Your task to perform on an android device: toggle location history Image 0: 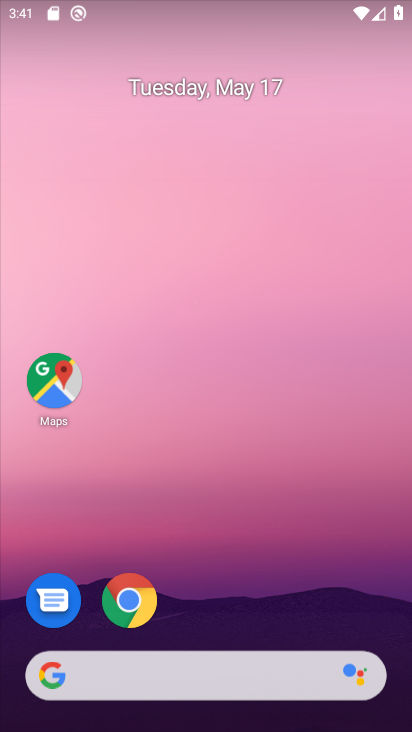
Step 0: drag from (237, 559) to (318, 5)
Your task to perform on an android device: toggle location history Image 1: 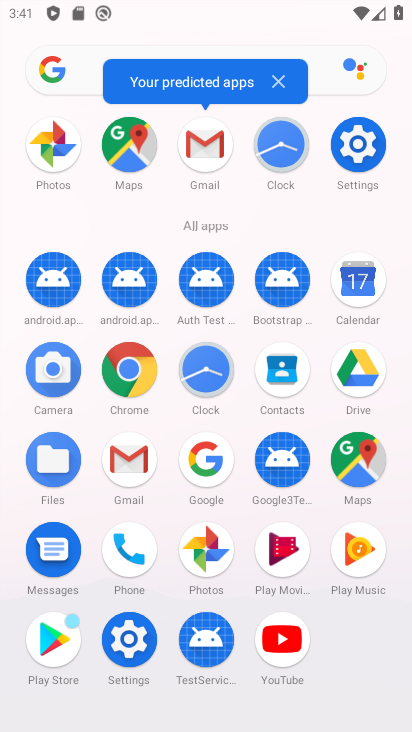
Step 1: click (132, 656)
Your task to perform on an android device: toggle location history Image 2: 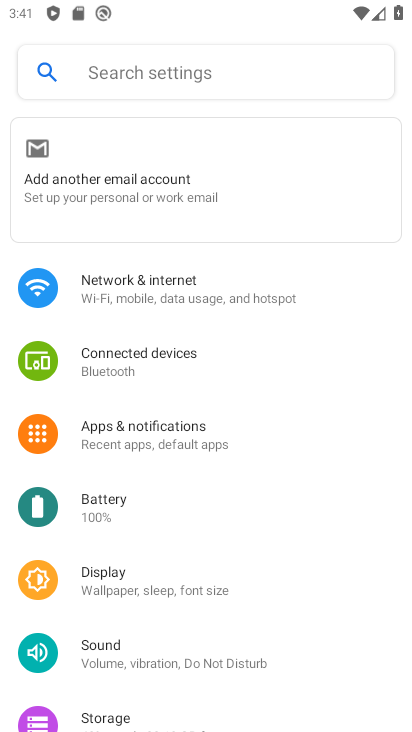
Step 2: click (214, 244)
Your task to perform on an android device: toggle location history Image 3: 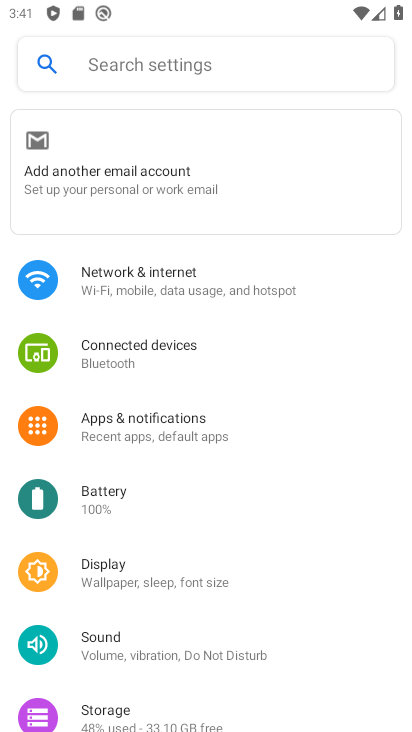
Step 3: drag from (157, 622) to (225, 233)
Your task to perform on an android device: toggle location history Image 4: 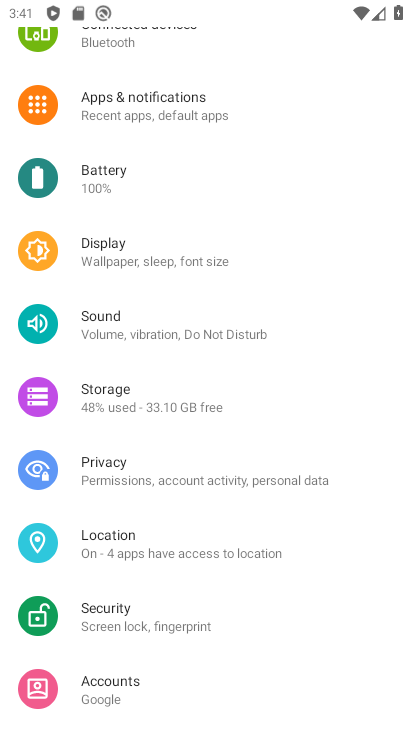
Step 4: click (169, 545)
Your task to perform on an android device: toggle location history Image 5: 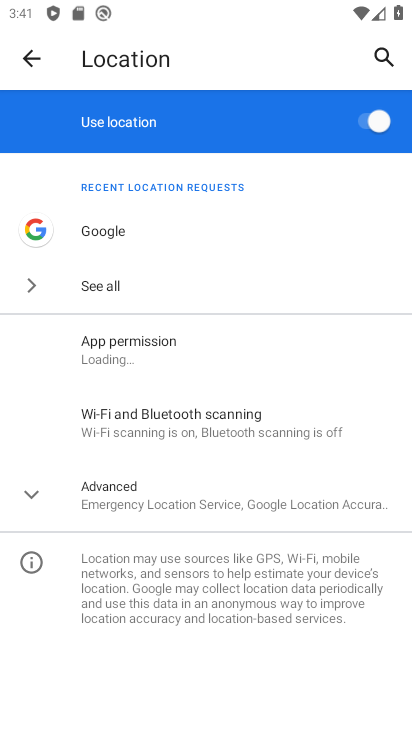
Step 5: click (168, 493)
Your task to perform on an android device: toggle location history Image 6: 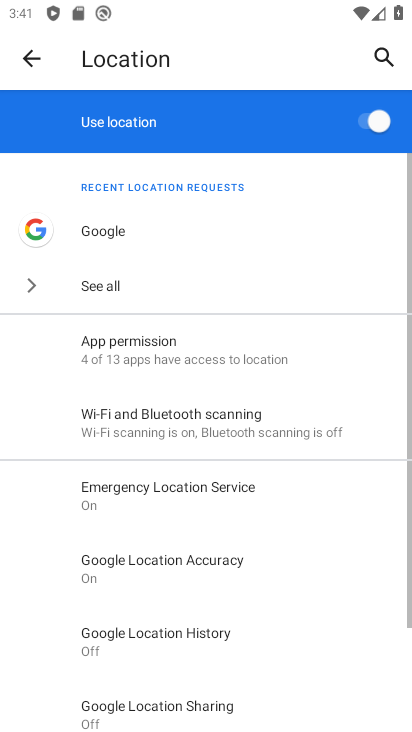
Step 6: click (187, 639)
Your task to perform on an android device: toggle location history Image 7: 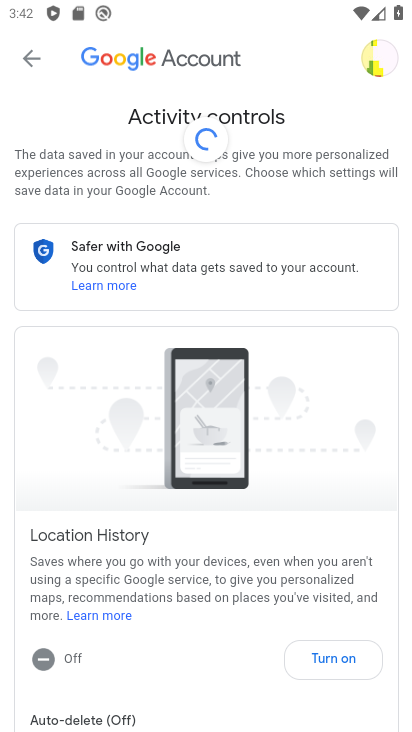
Step 7: click (336, 664)
Your task to perform on an android device: toggle location history Image 8: 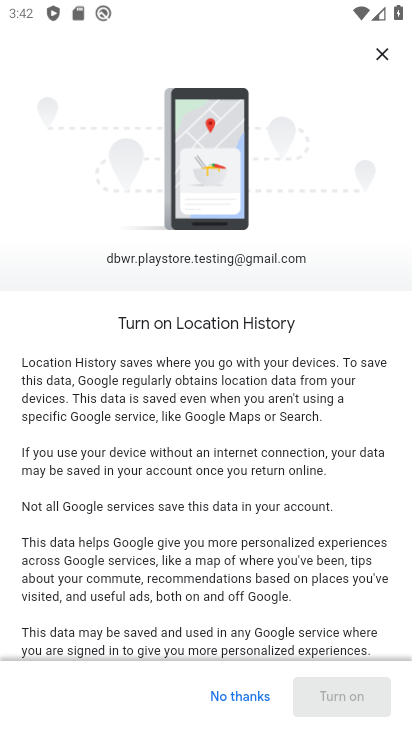
Step 8: drag from (272, 606) to (330, 94)
Your task to perform on an android device: toggle location history Image 9: 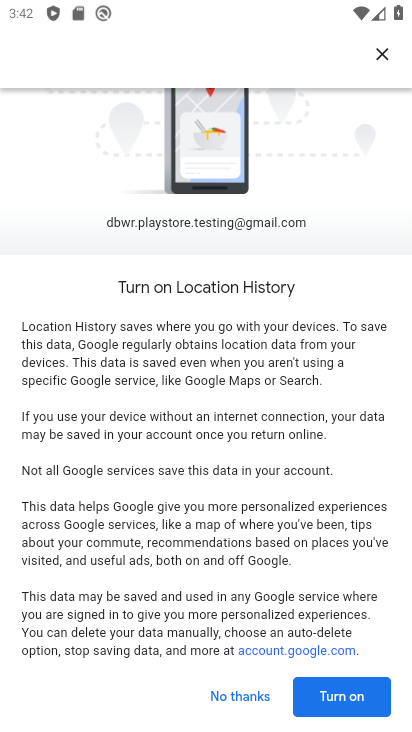
Step 9: click (370, 701)
Your task to perform on an android device: toggle location history Image 10: 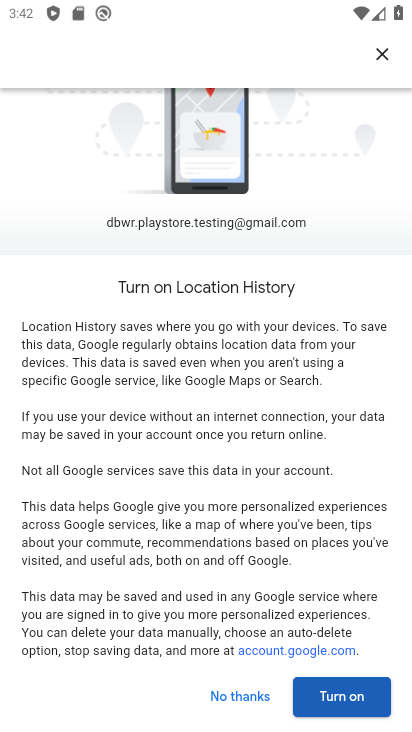
Step 10: click (368, 700)
Your task to perform on an android device: toggle location history Image 11: 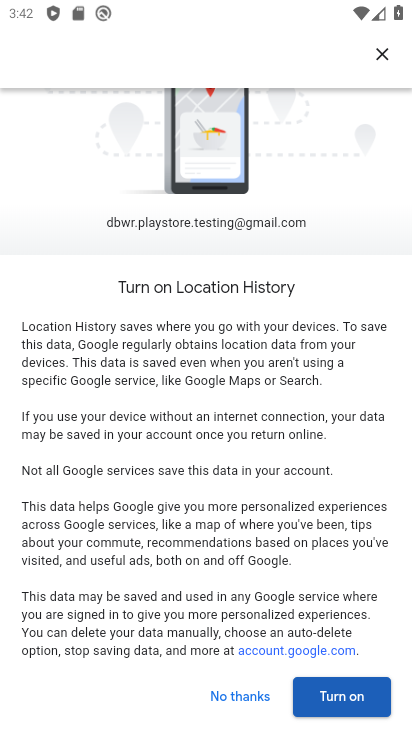
Step 11: click (362, 699)
Your task to perform on an android device: toggle location history Image 12: 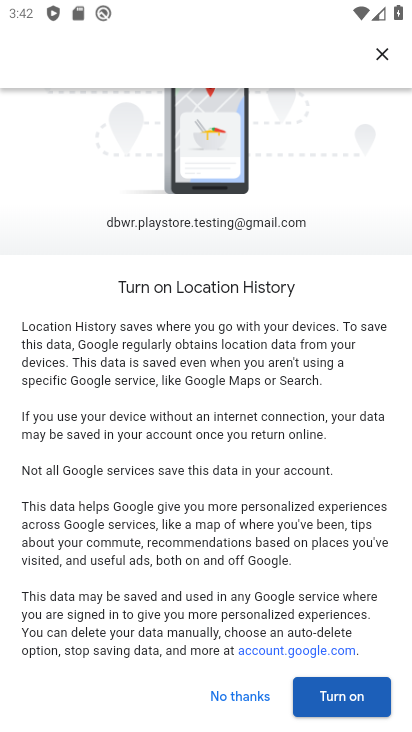
Step 12: click (364, 699)
Your task to perform on an android device: toggle location history Image 13: 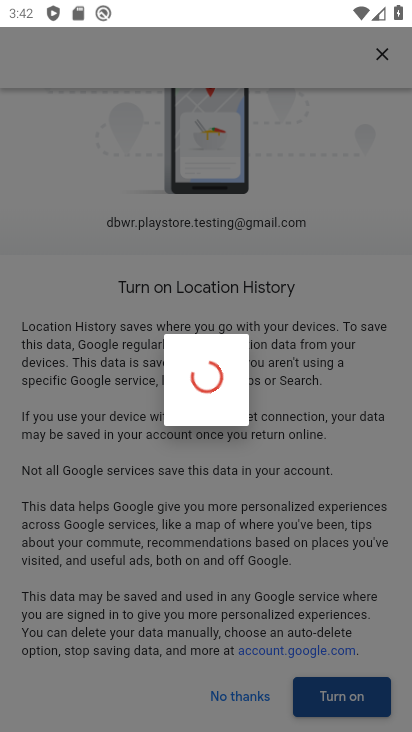
Step 13: click (364, 699)
Your task to perform on an android device: toggle location history Image 14: 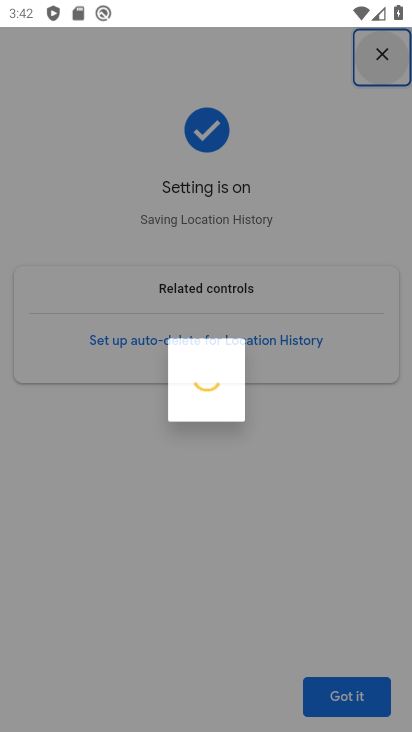
Step 14: click (367, 697)
Your task to perform on an android device: toggle location history Image 15: 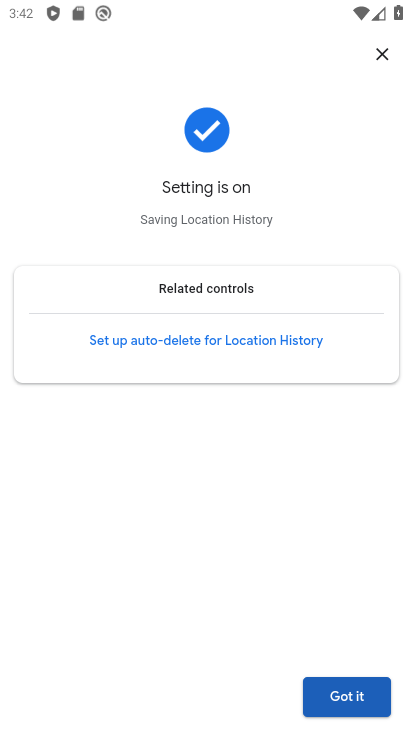
Step 15: click (364, 701)
Your task to perform on an android device: toggle location history Image 16: 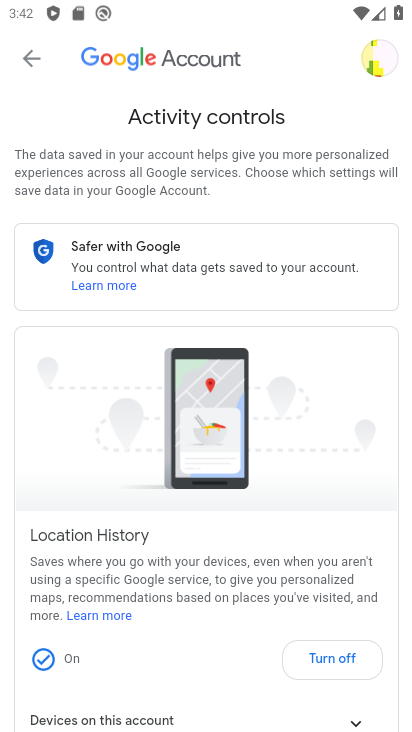
Step 16: task complete